Your task to perform on an android device: Is it going to rain tomorrow? Image 0: 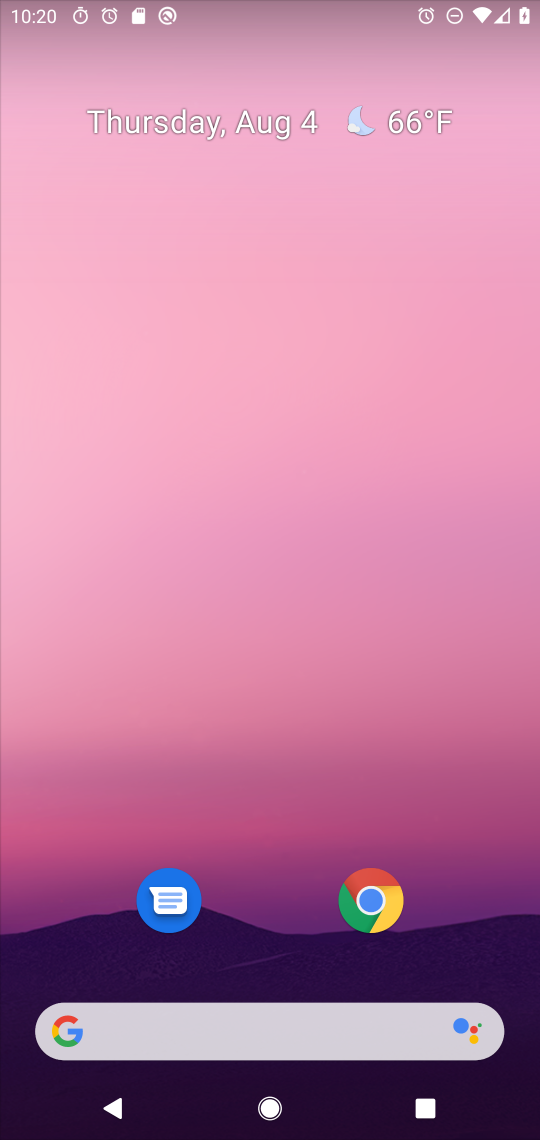
Step 0: drag from (257, 1022) to (251, 54)
Your task to perform on an android device: Is it going to rain tomorrow? Image 1: 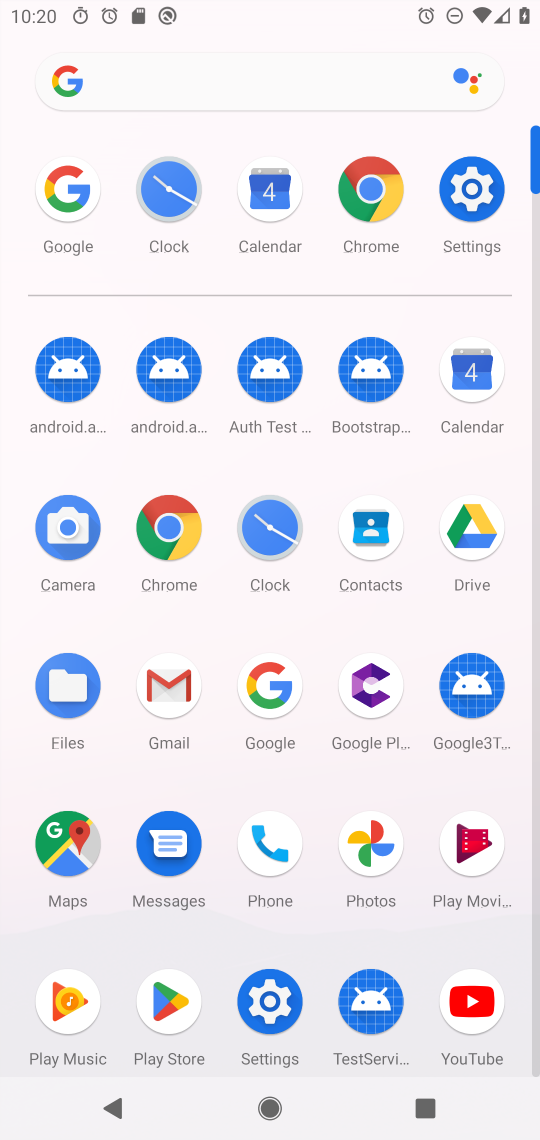
Step 1: click (66, 193)
Your task to perform on an android device: Is it going to rain tomorrow? Image 2: 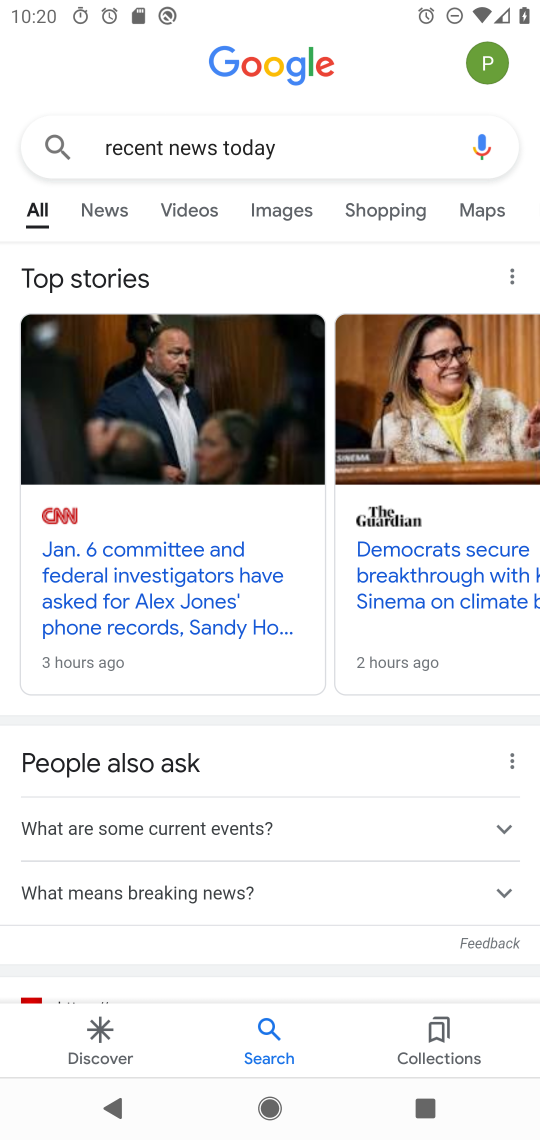
Step 2: click (329, 147)
Your task to perform on an android device: Is it going to rain tomorrow? Image 3: 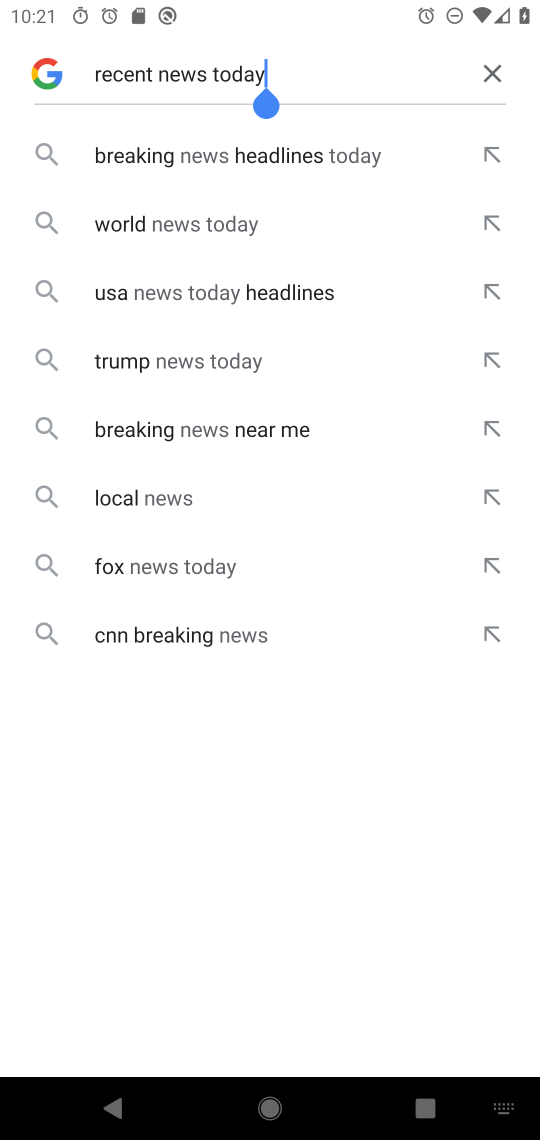
Step 3: click (488, 71)
Your task to perform on an android device: Is it going to rain tomorrow? Image 4: 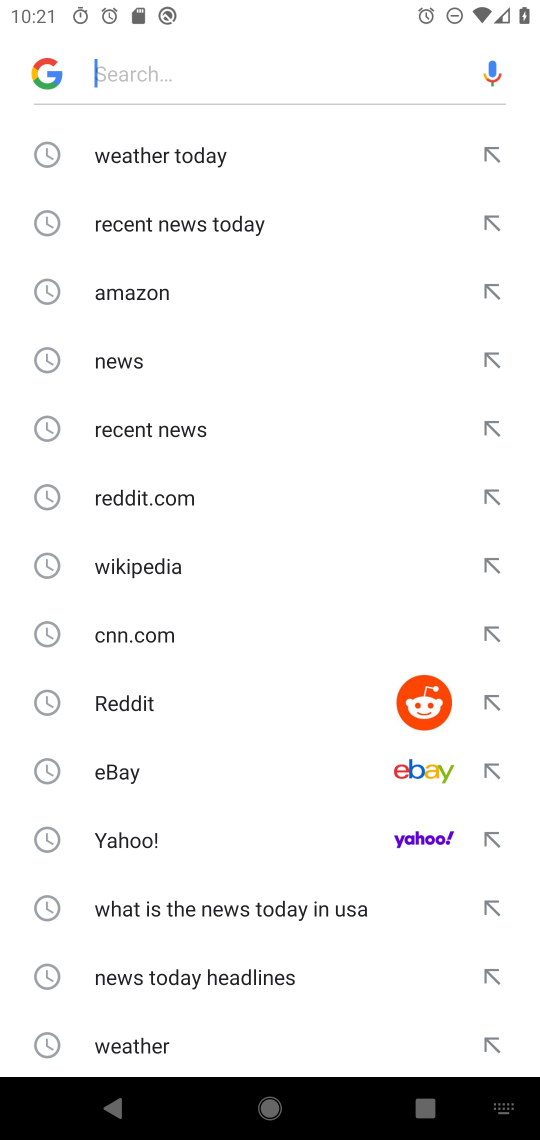
Step 4: type "Is it going to rain tomorrow?"
Your task to perform on an android device: Is it going to rain tomorrow? Image 5: 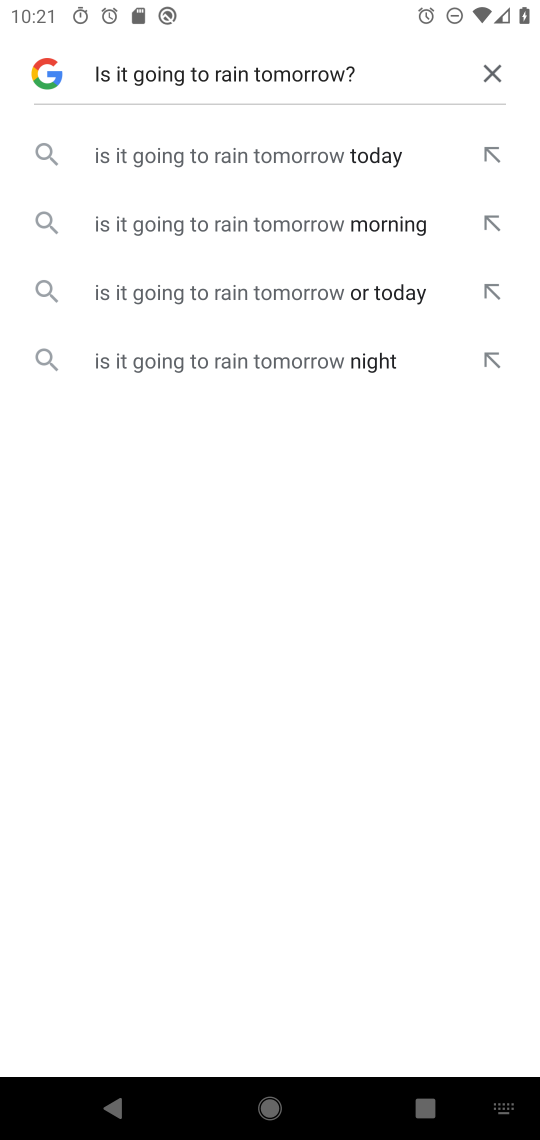
Step 5: click (253, 155)
Your task to perform on an android device: Is it going to rain tomorrow? Image 6: 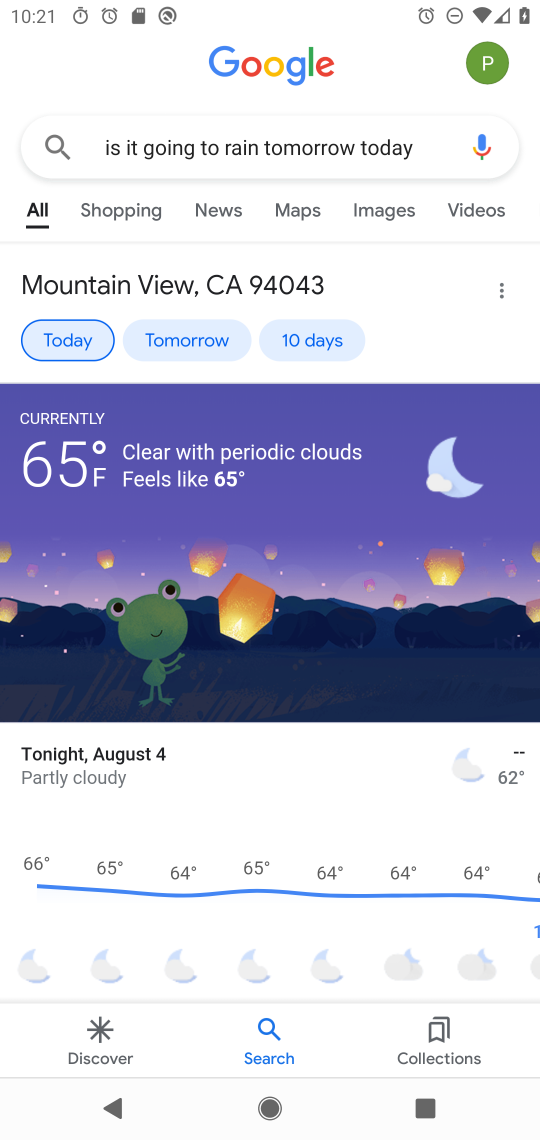
Step 6: task complete